Your task to perform on an android device: Open location settings Image 0: 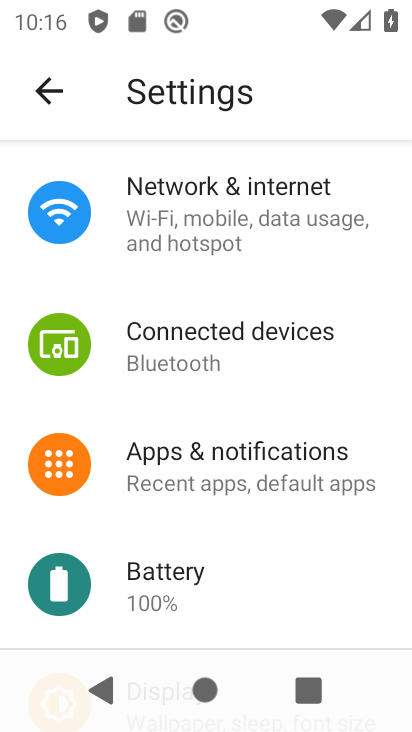
Step 0: drag from (232, 570) to (232, 220)
Your task to perform on an android device: Open location settings Image 1: 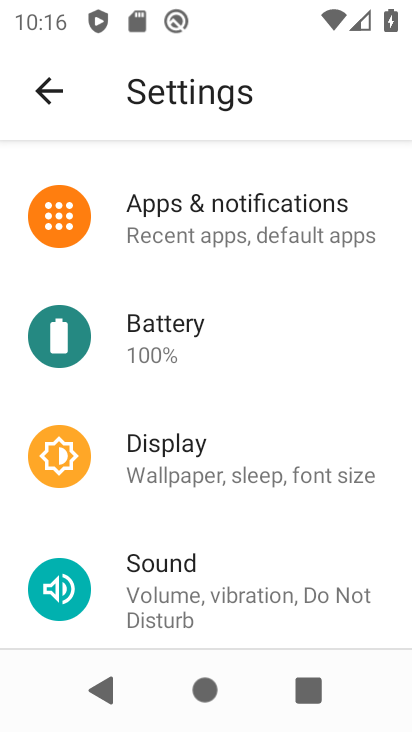
Step 1: drag from (222, 597) to (254, 327)
Your task to perform on an android device: Open location settings Image 2: 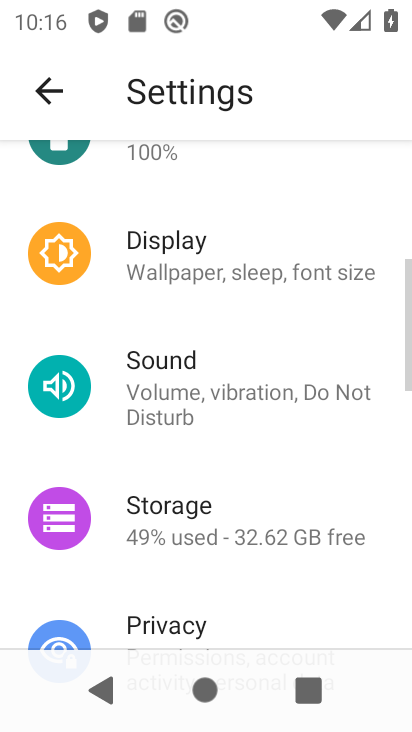
Step 2: drag from (283, 582) to (301, 268)
Your task to perform on an android device: Open location settings Image 3: 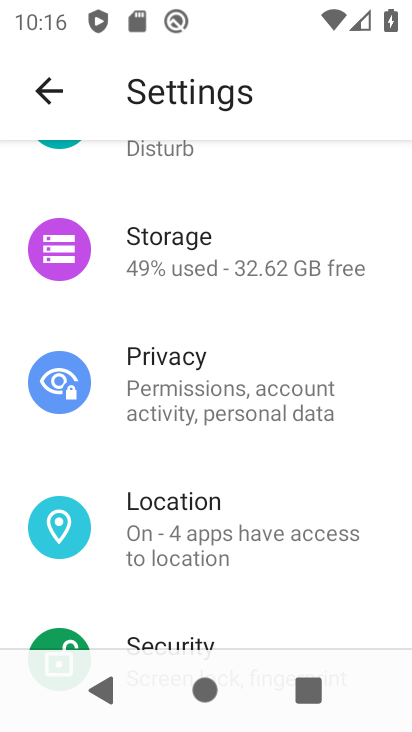
Step 3: click (247, 558)
Your task to perform on an android device: Open location settings Image 4: 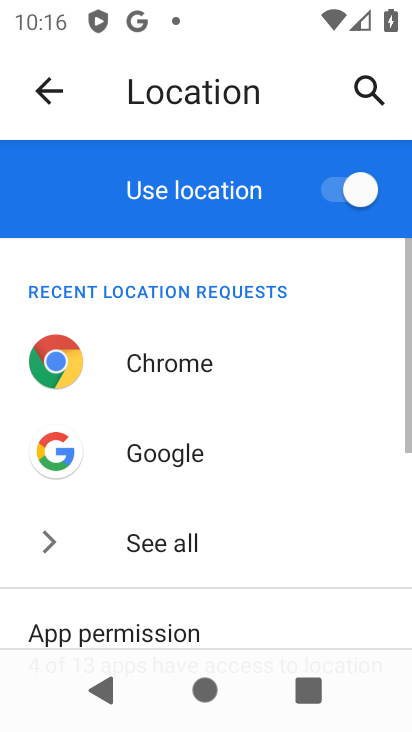
Step 4: task complete